Your task to perform on an android device: Search for razer blackwidow on costco, select the first entry, add it to the cart, then select checkout. Image 0: 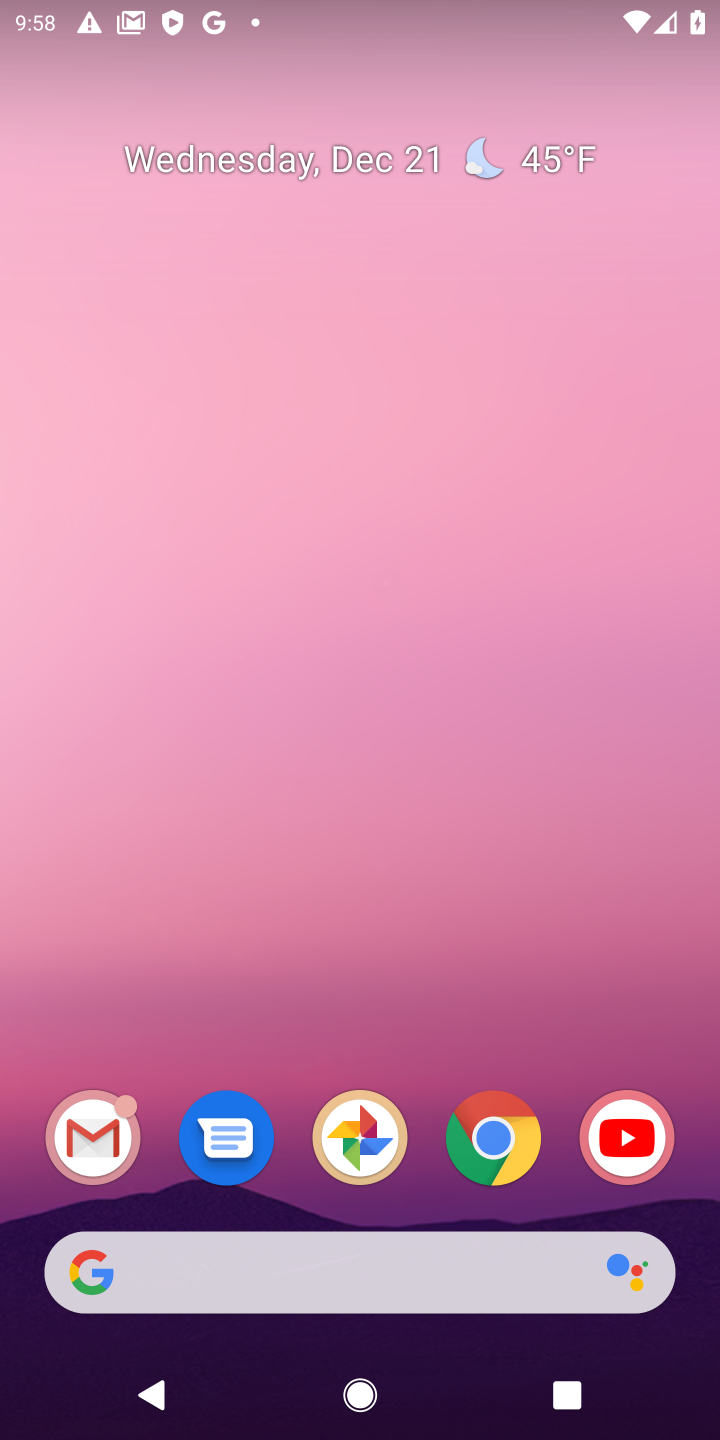
Step 0: click (488, 1150)
Your task to perform on an android device: Search for razer blackwidow on costco, select the first entry, add it to the cart, then select checkout. Image 1: 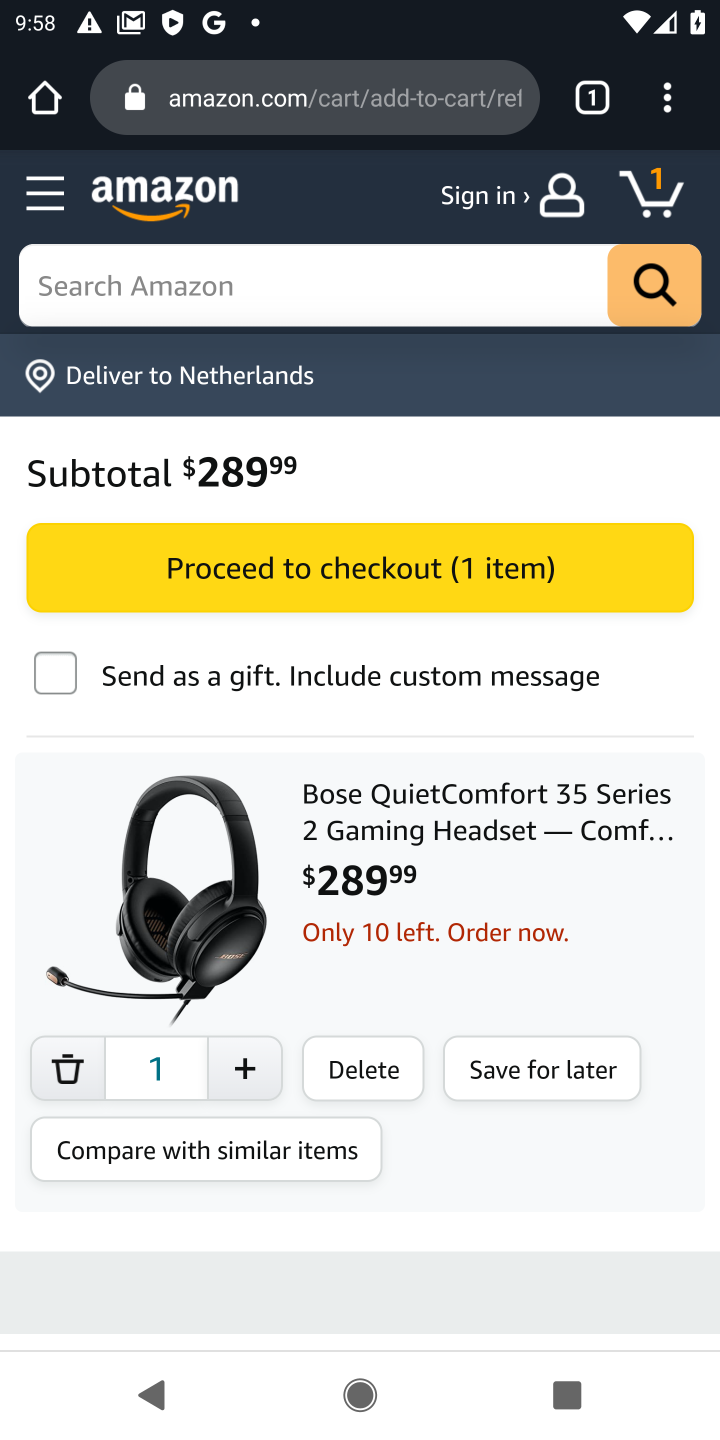
Step 1: click (292, 113)
Your task to perform on an android device: Search for razer blackwidow on costco, select the first entry, add it to the cart, then select checkout. Image 2: 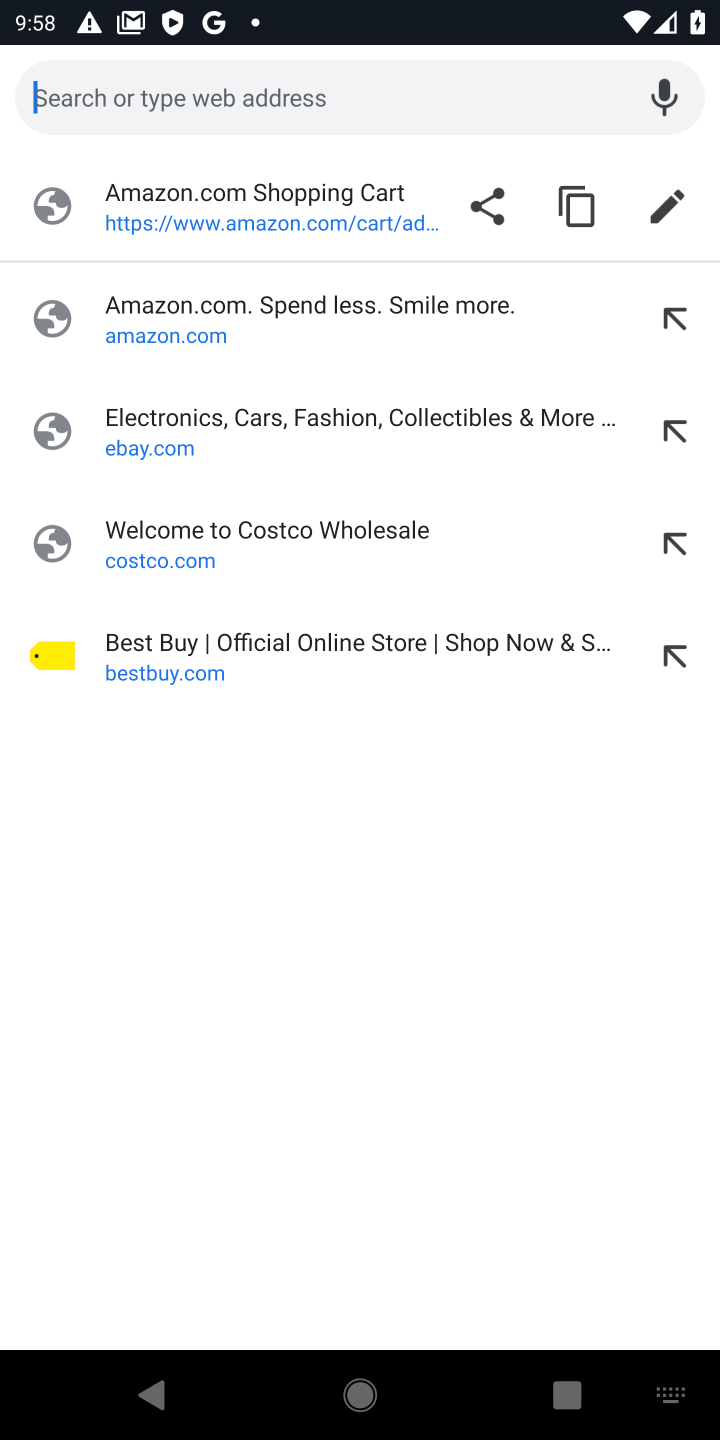
Step 2: click (146, 561)
Your task to perform on an android device: Search for razer blackwidow on costco, select the first entry, add it to the cart, then select checkout. Image 3: 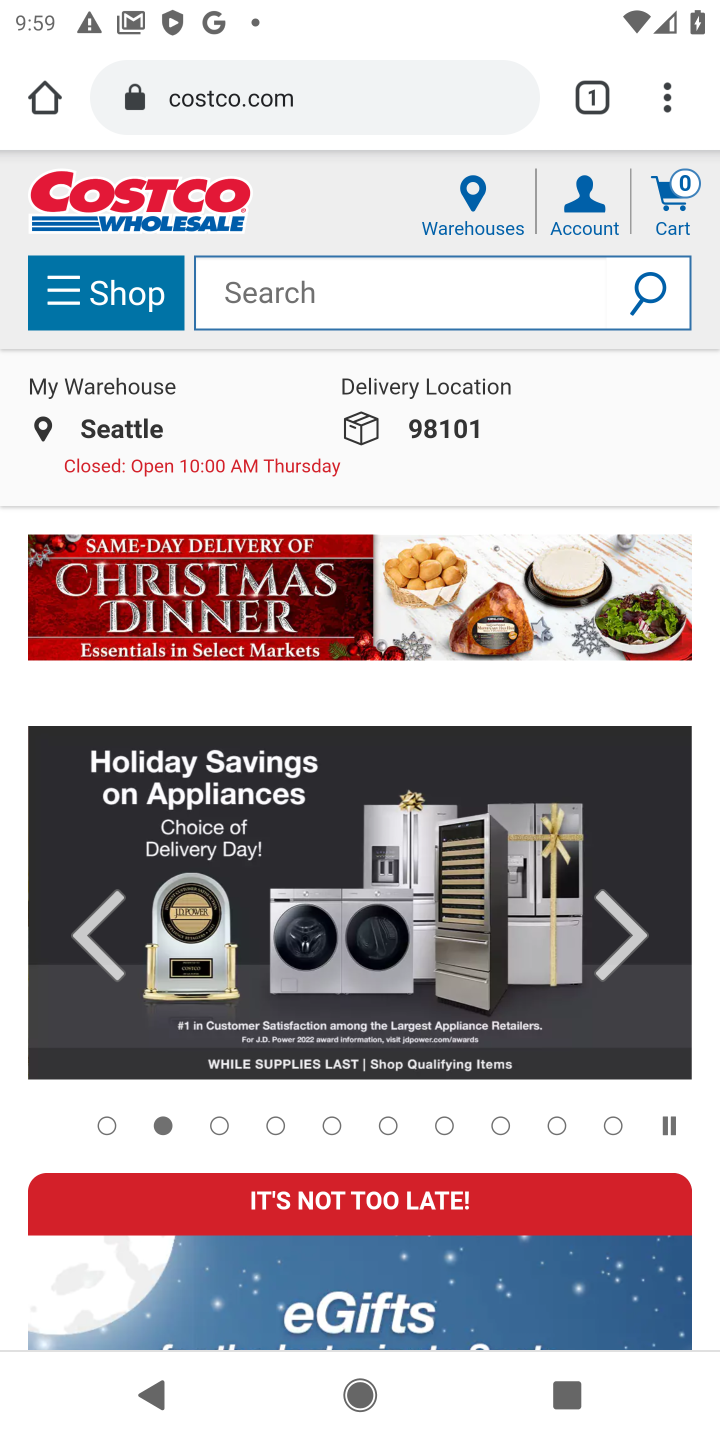
Step 3: click (268, 283)
Your task to perform on an android device: Search for razer blackwidow on costco, select the first entry, add it to the cart, then select checkout. Image 4: 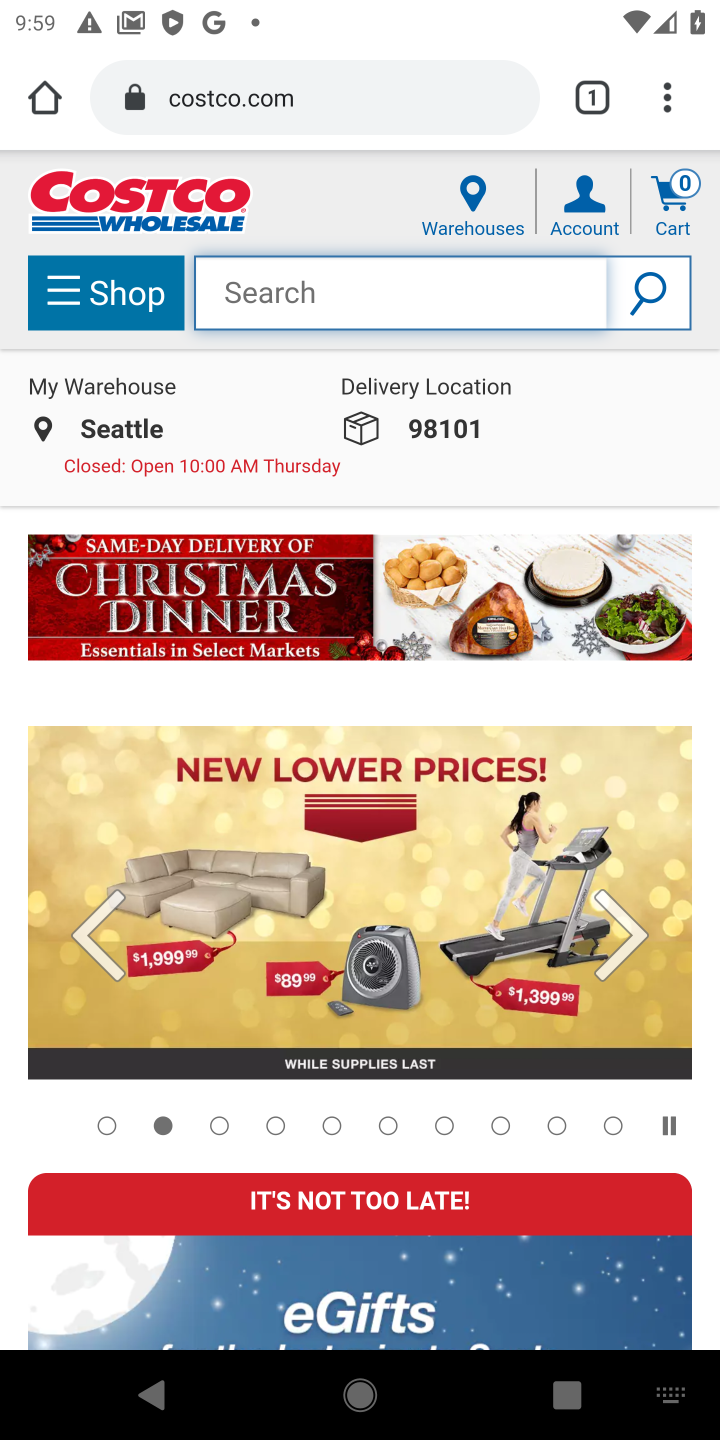
Step 4: type "razer blackwidow"
Your task to perform on an android device: Search for razer blackwidow on costco, select the first entry, add it to the cart, then select checkout. Image 5: 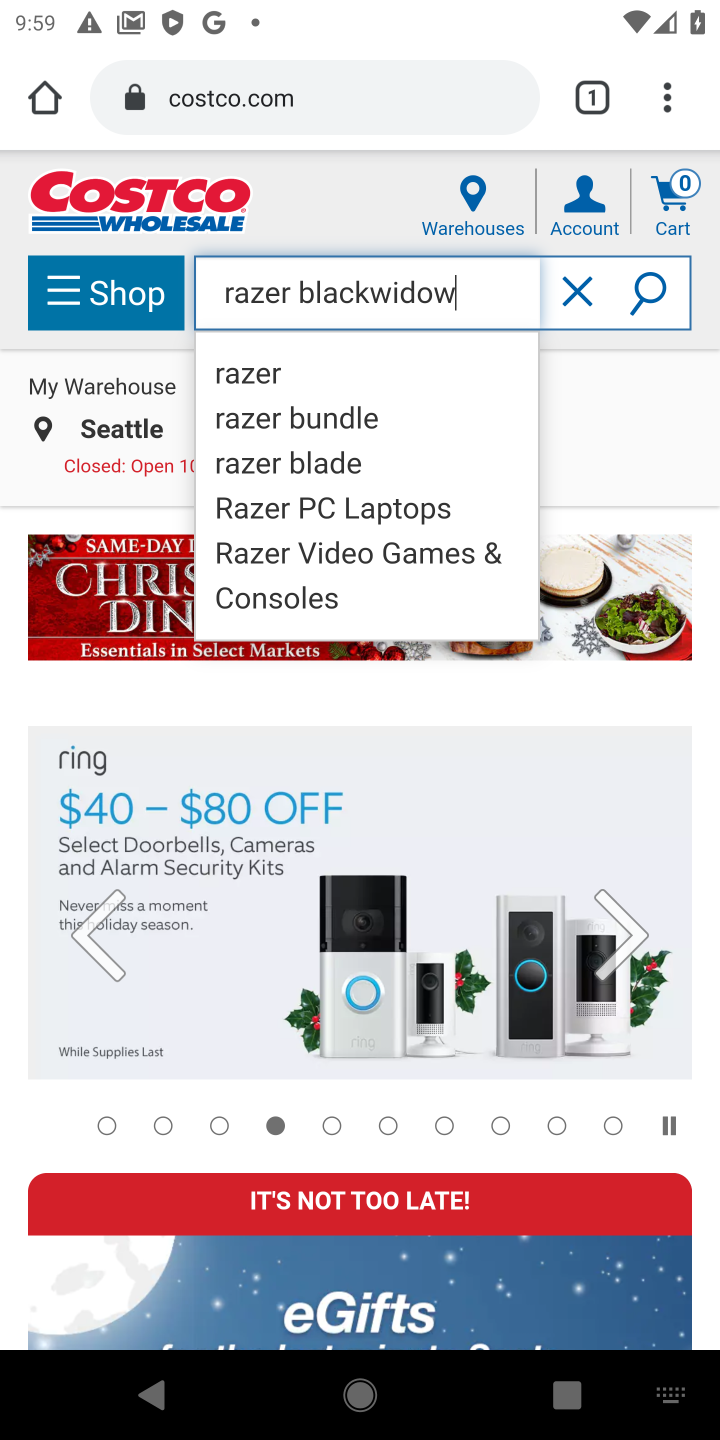
Step 5: click (655, 303)
Your task to perform on an android device: Search for razer blackwidow on costco, select the first entry, add it to the cart, then select checkout. Image 6: 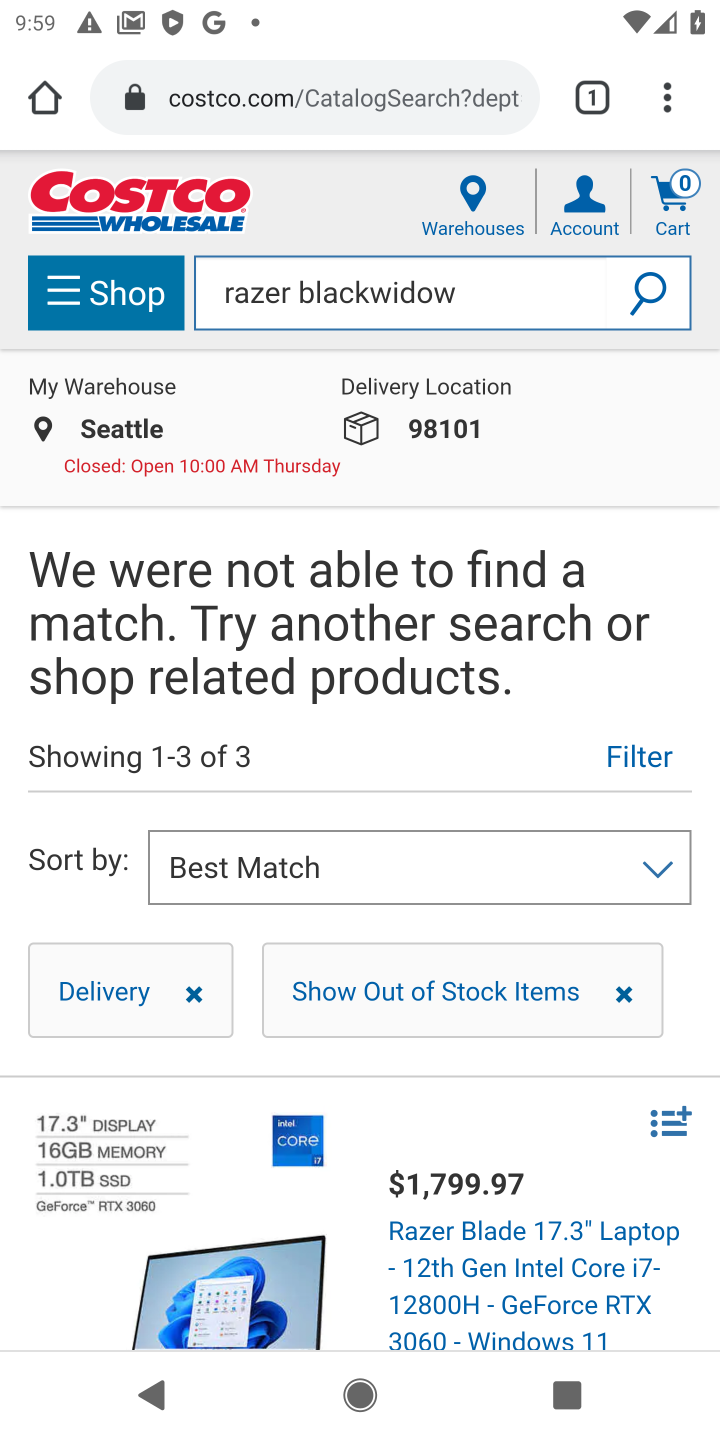
Step 6: task complete